Your task to perform on an android device: Add apple airpods pro to the cart on amazon, then select checkout. Image 0: 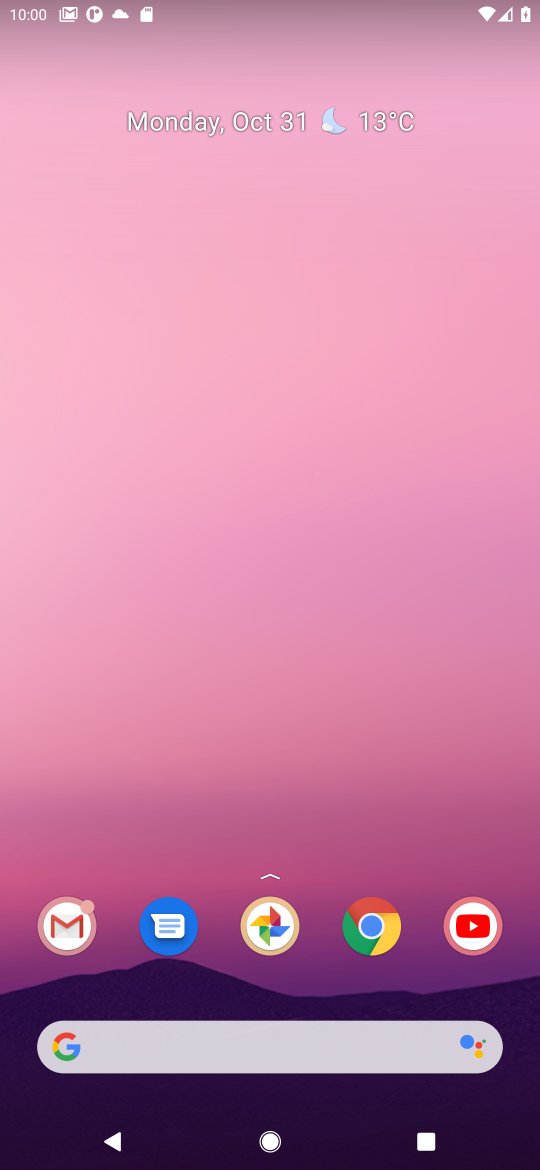
Step 0: click (359, 922)
Your task to perform on an android device: Add apple airpods pro to the cart on amazon, then select checkout. Image 1: 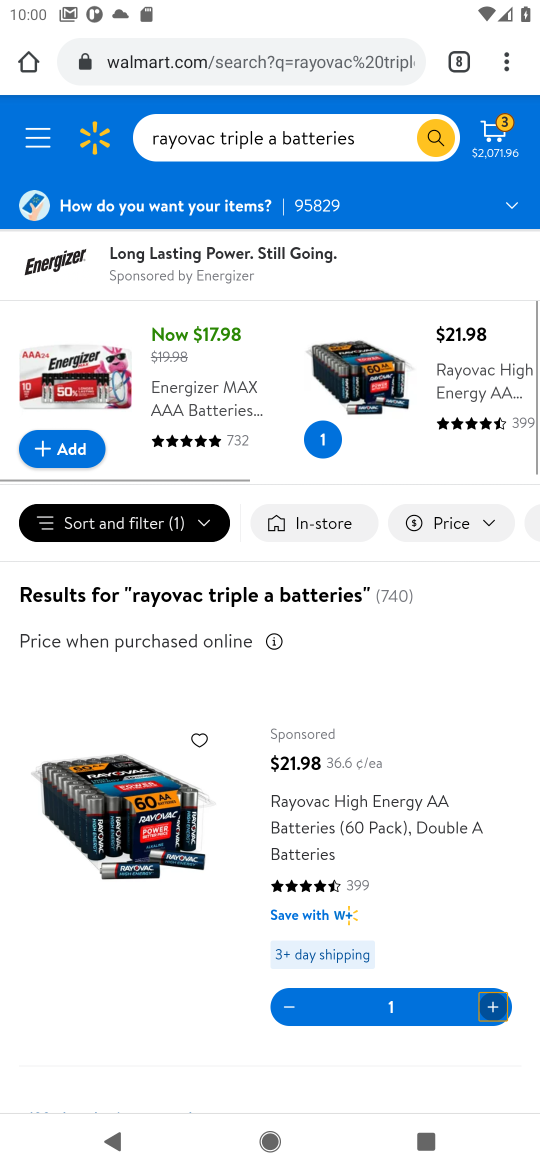
Step 1: click (456, 50)
Your task to perform on an android device: Add apple airpods pro to the cart on amazon, then select checkout. Image 2: 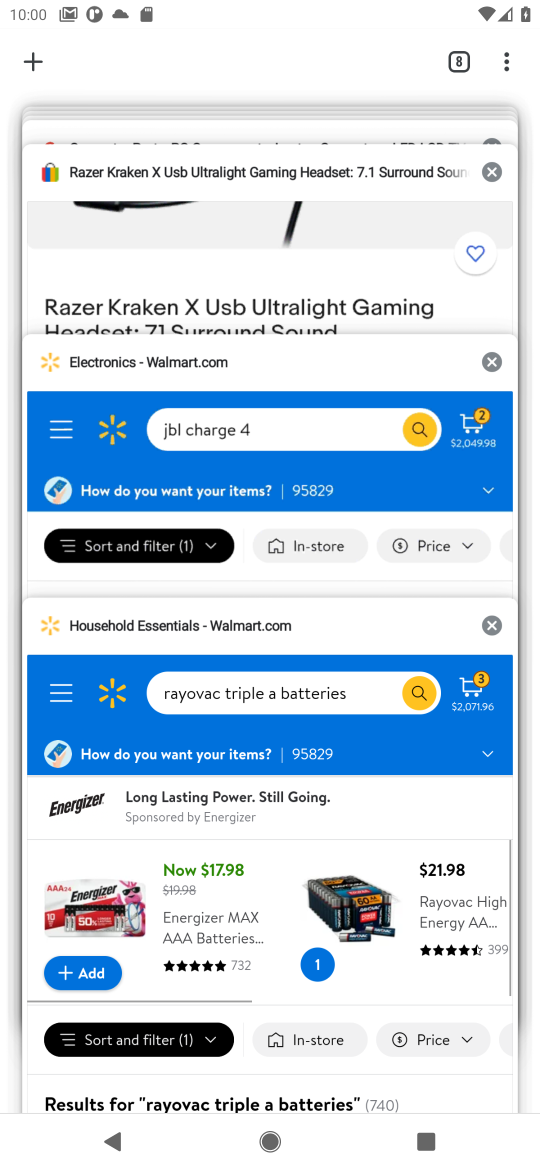
Step 2: click (494, 363)
Your task to perform on an android device: Add apple airpods pro to the cart on amazon, then select checkout. Image 3: 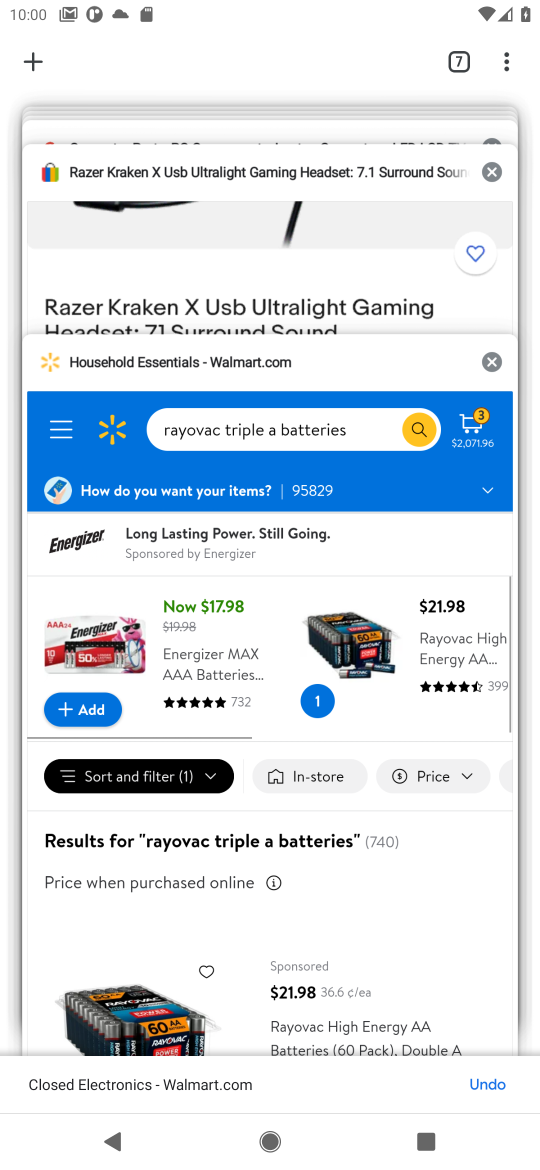
Step 3: drag from (316, 181) to (194, 697)
Your task to perform on an android device: Add apple airpods pro to the cart on amazon, then select checkout. Image 4: 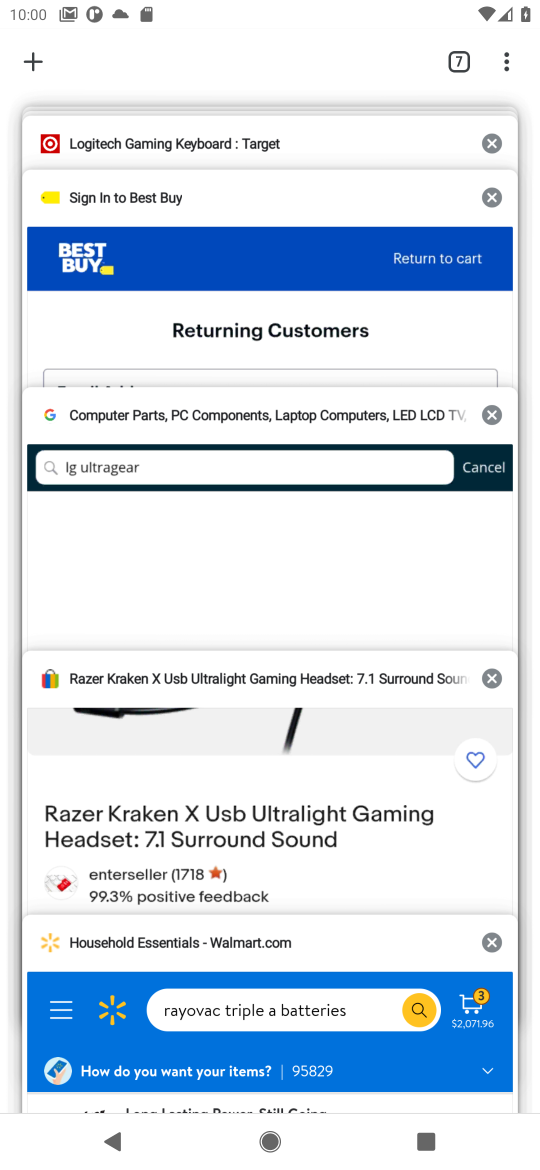
Step 4: drag from (322, 126) to (292, 331)
Your task to perform on an android device: Add apple airpods pro to the cart on amazon, then select checkout. Image 5: 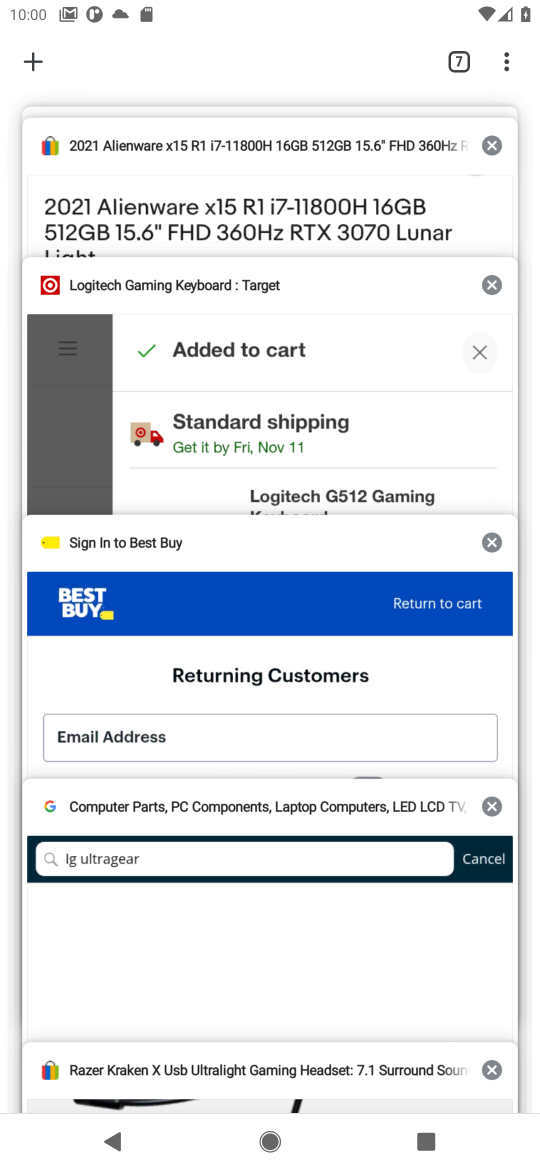
Step 5: drag from (336, 160) to (277, 513)
Your task to perform on an android device: Add apple airpods pro to the cart on amazon, then select checkout. Image 6: 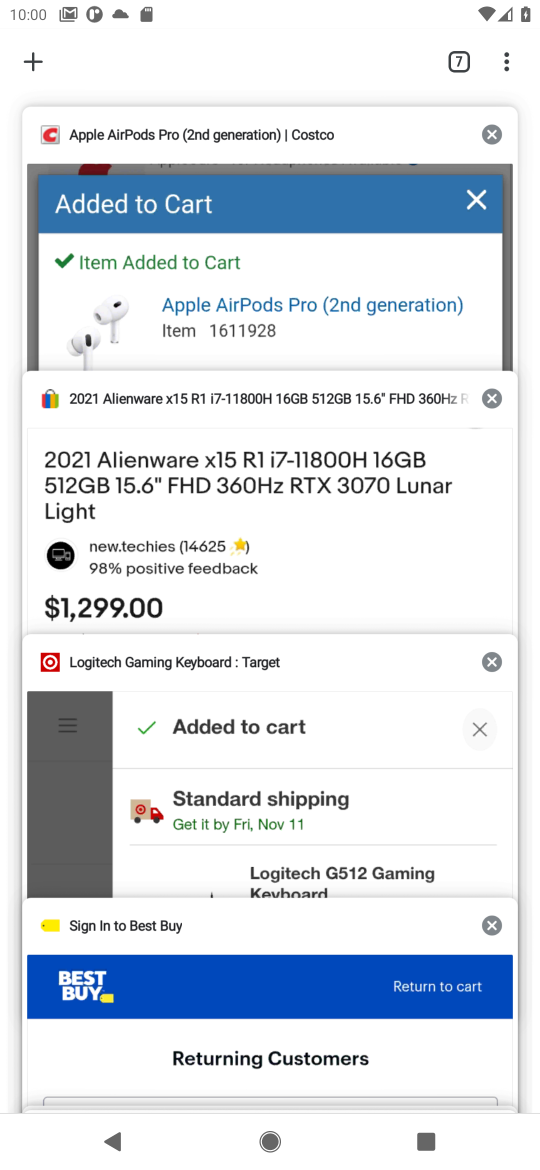
Step 6: drag from (381, 151) to (361, 298)
Your task to perform on an android device: Add apple airpods pro to the cart on amazon, then select checkout. Image 7: 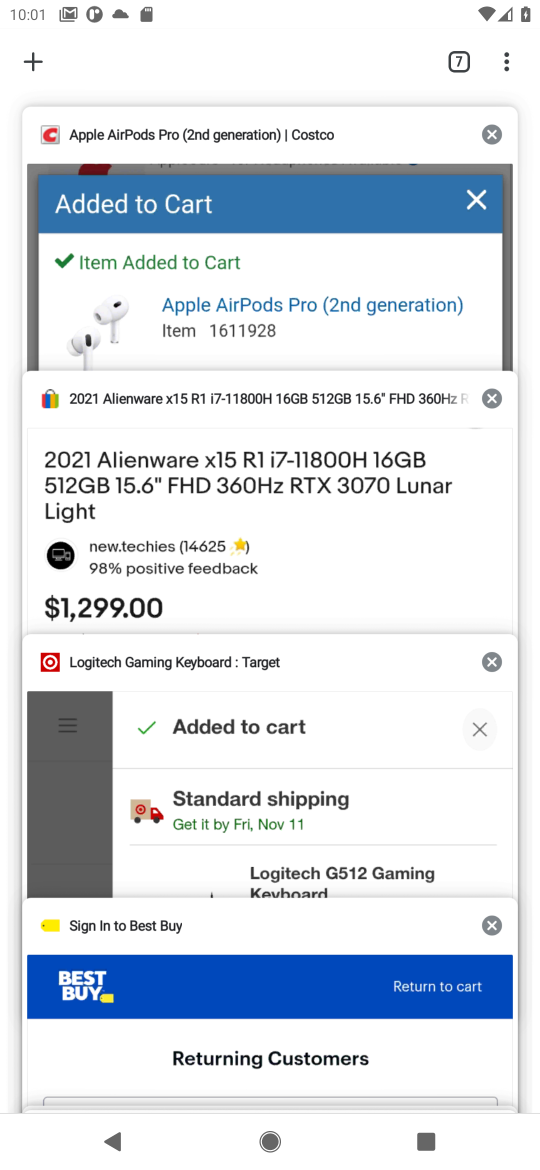
Step 7: drag from (274, 651) to (334, 473)
Your task to perform on an android device: Add apple airpods pro to the cart on amazon, then select checkout. Image 8: 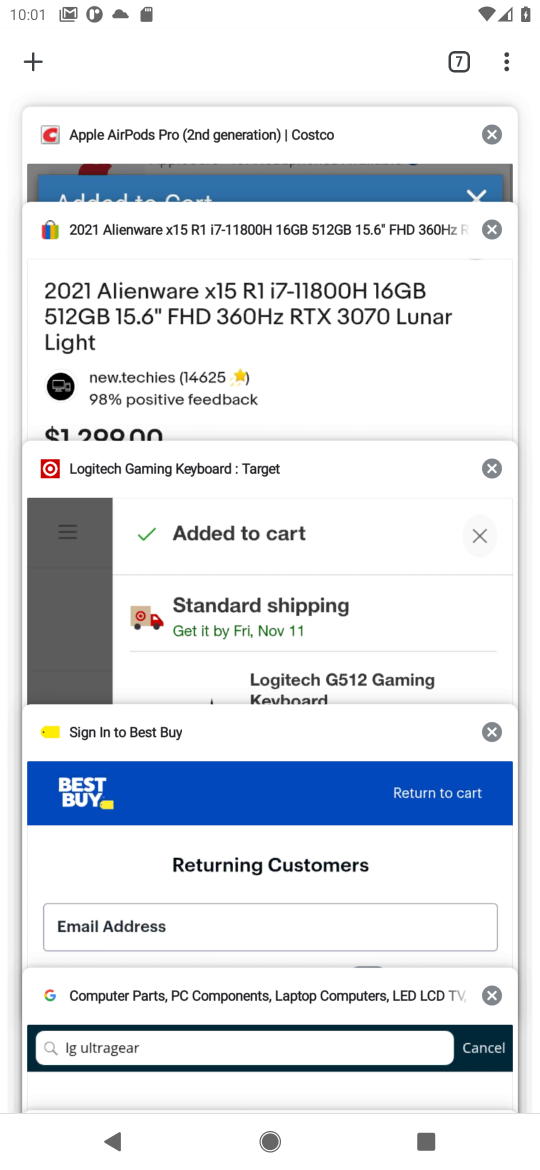
Step 8: drag from (252, 1026) to (287, 885)
Your task to perform on an android device: Add apple airpods pro to the cart on amazon, then select checkout. Image 9: 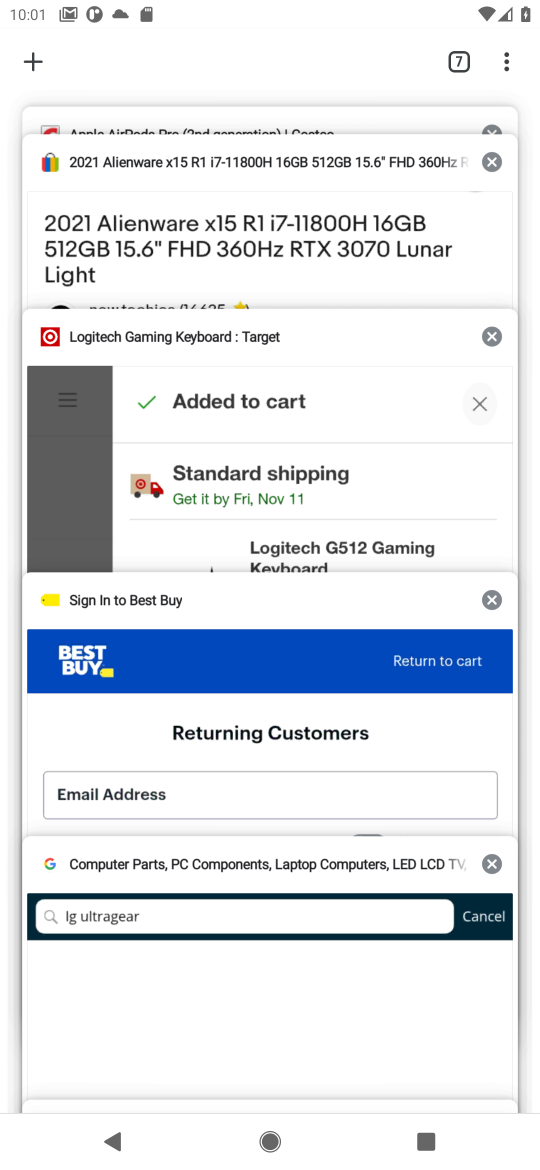
Step 9: drag from (263, 1078) to (412, 449)
Your task to perform on an android device: Add apple airpods pro to the cart on amazon, then select checkout. Image 10: 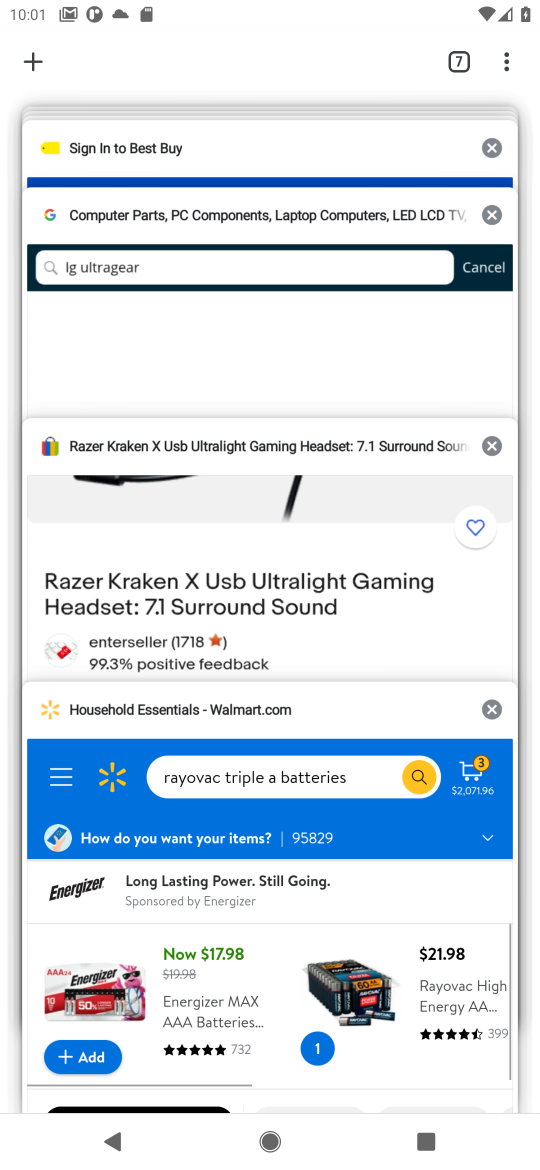
Step 10: drag from (262, 834) to (344, 540)
Your task to perform on an android device: Add apple airpods pro to the cart on amazon, then select checkout. Image 11: 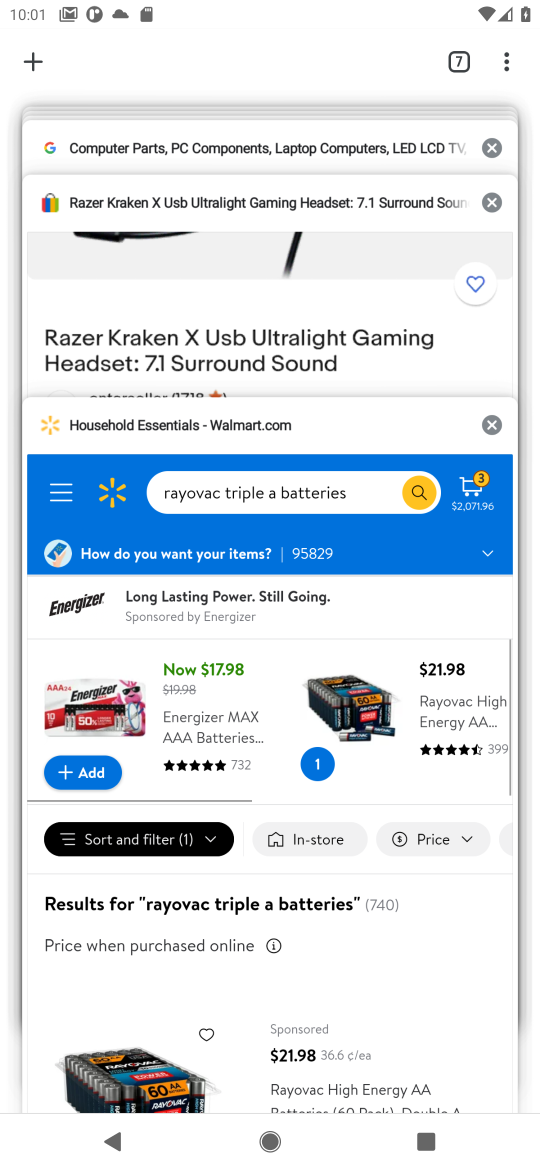
Step 11: click (27, 55)
Your task to perform on an android device: Add apple airpods pro to the cart on amazon, then select checkout. Image 12: 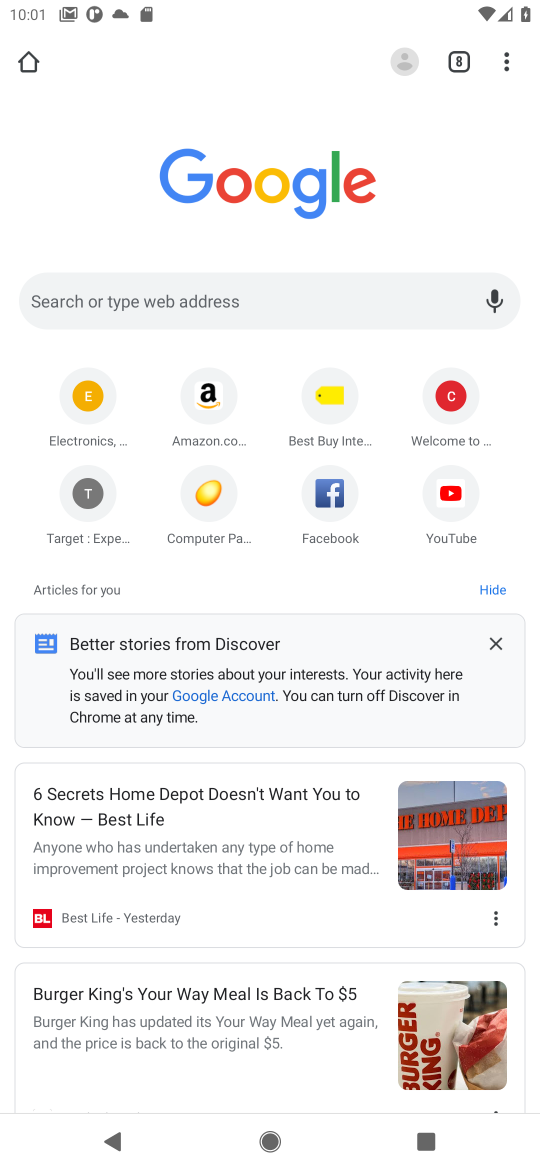
Step 12: click (200, 390)
Your task to perform on an android device: Add apple airpods pro to the cart on amazon, then select checkout. Image 13: 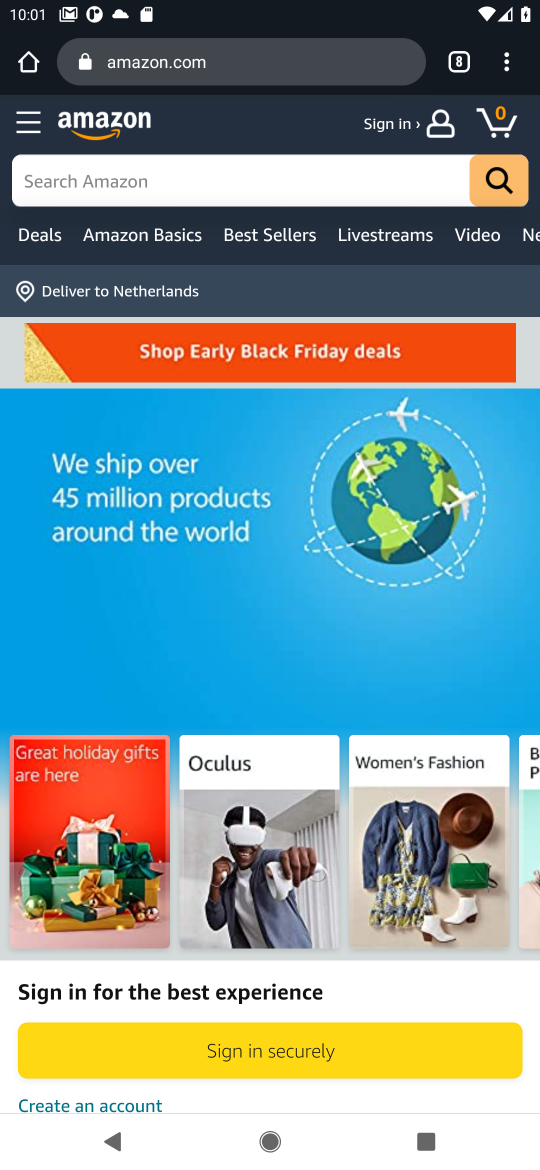
Step 13: click (248, 177)
Your task to perform on an android device: Add apple airpods pro to the cart on amazon, then select checkout. Image 14: 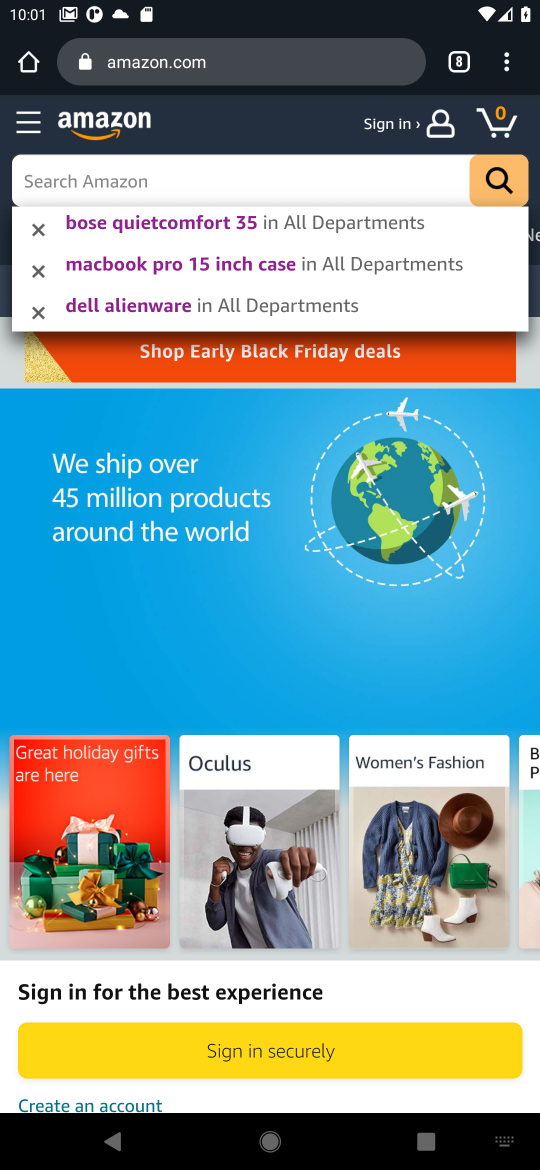
Step 14: type "apple airpods pro"
Your task to perform on an android device: Add apple airpods pro to the cart on amazon, then select checkout. Image 15: 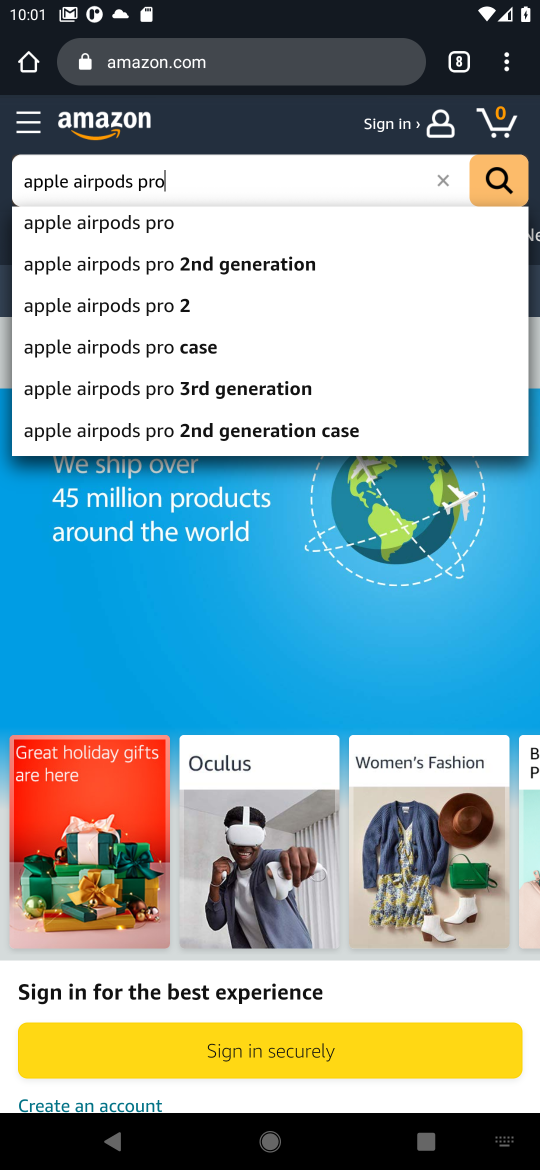
Step 15: click (174, 268)
Your task to perform on an android device: Add apple airpods pro to the cart on amazon, then select checkout. Image 16: 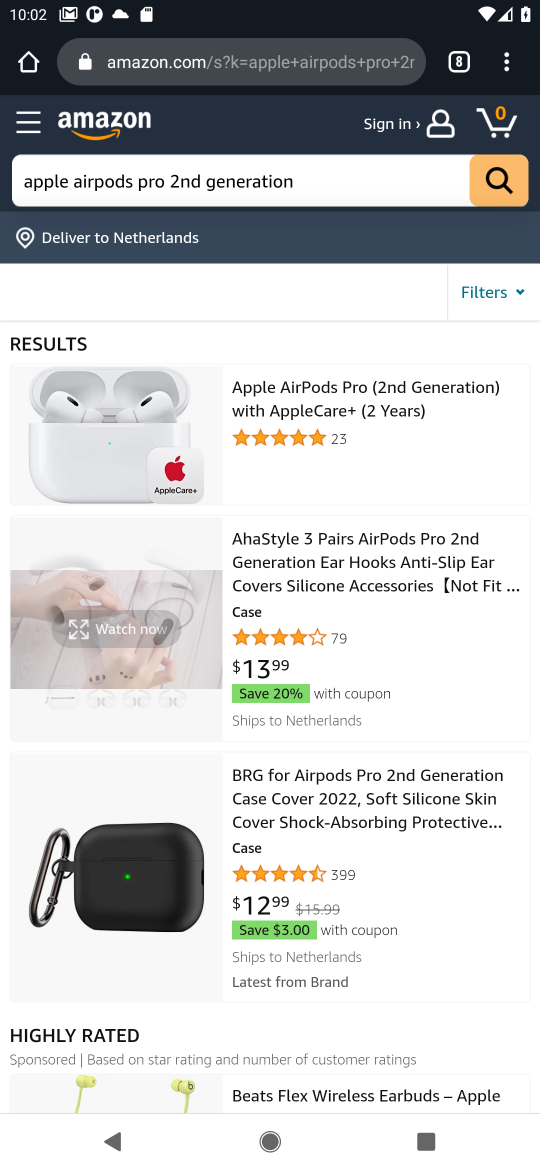
Step 16: click (387, 783)
Your task to perform on an android device: Add apple airpods pro to the cart on amazon, then select checkout. Image 17: 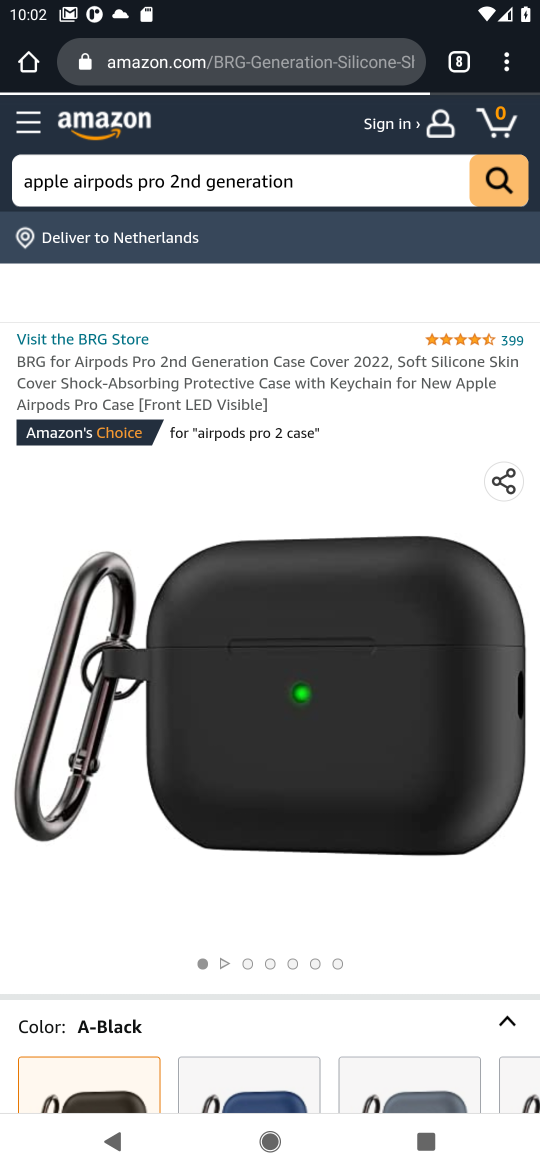
Step 17: drag from (316, 1030) to (408, 256)
Your task to perform on an android device: Add apple airpods pro to the cart on amazon, then select checkout. Image 18: 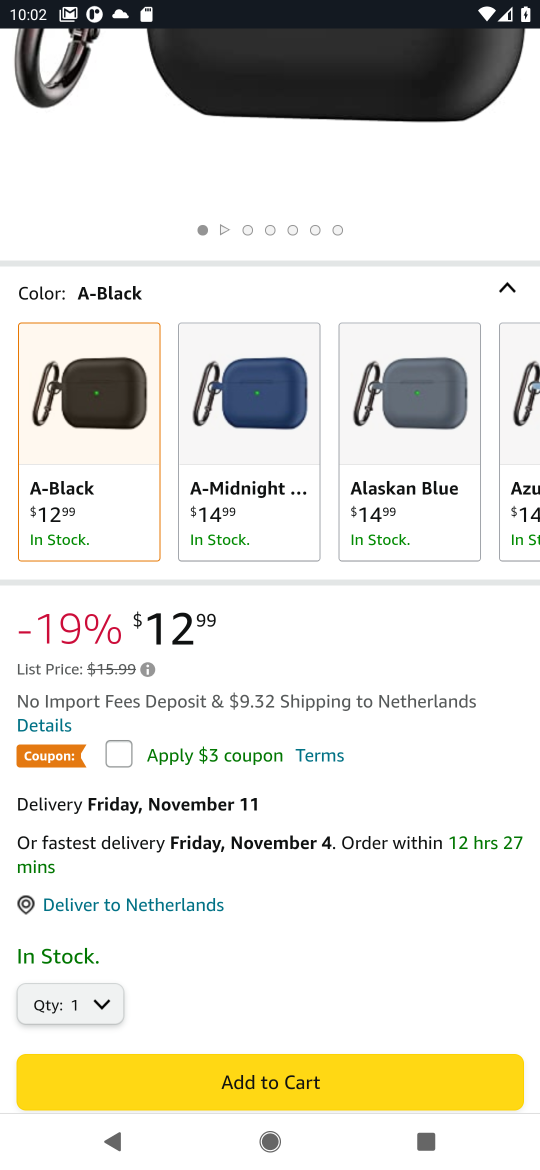
Step 18: click (293, 1083)
Your task to perform on an android device: Add apple airpods pro to the cart on amazon, then select checkout. Image 19: 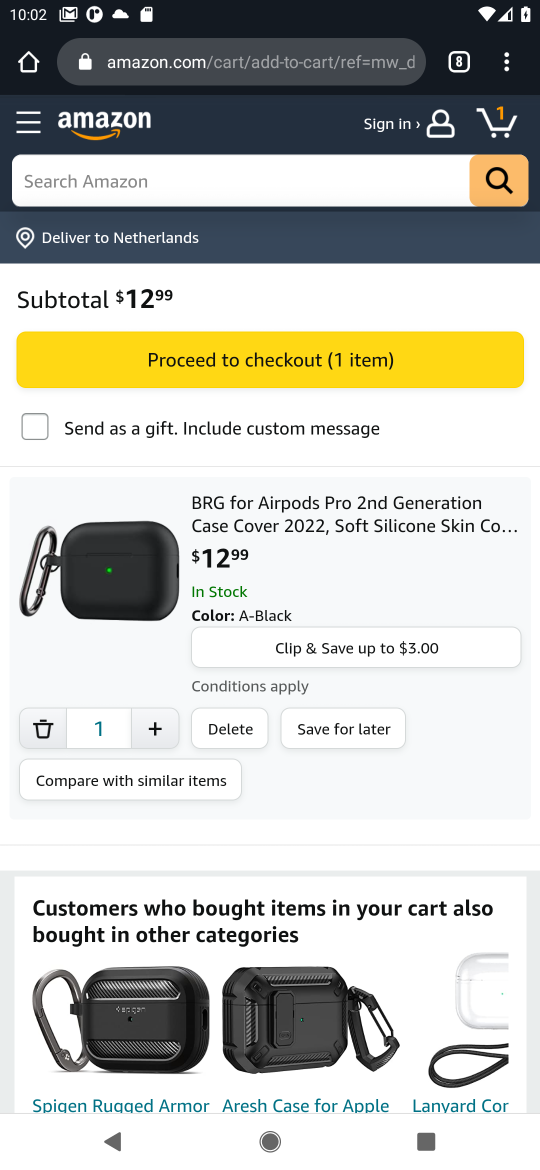
Step 19: click (355, 343)
Your task to perform on an android device: Add apple airpods pro to the cart on amazon, then select checkout. Image 20: 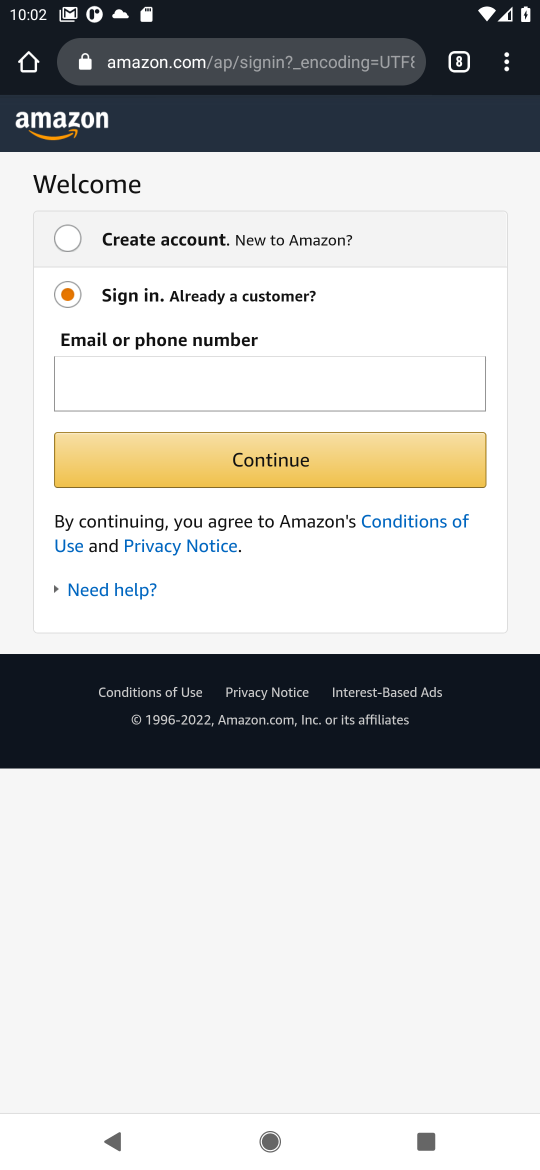
Step 20: task complete